Your task to perform on an android device: change notifications settings Image 0: 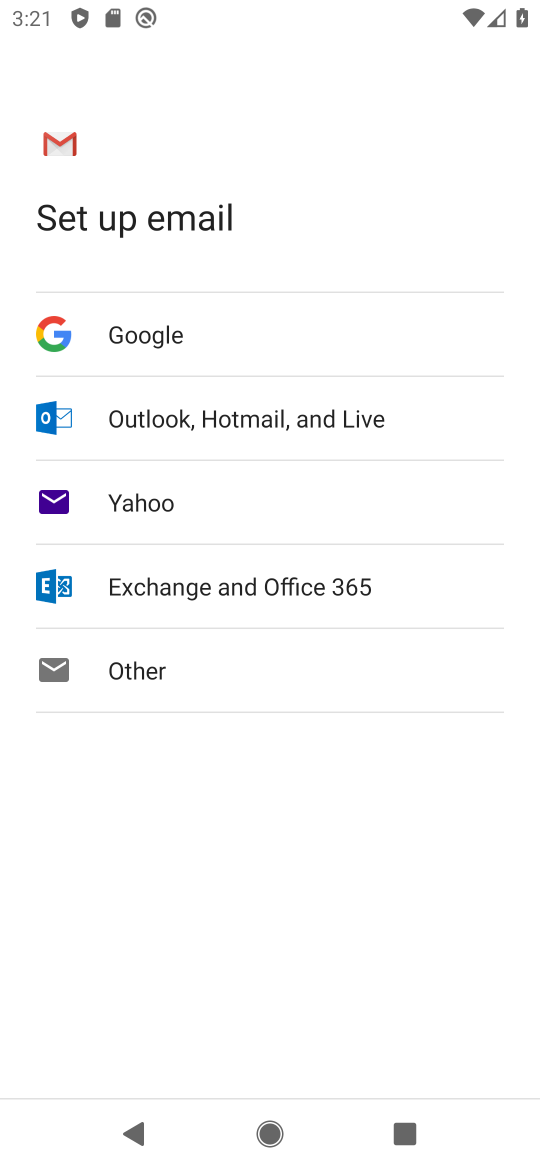
Step 0: press home button
Your task to perform on an android device: change notifications settings Image 1: 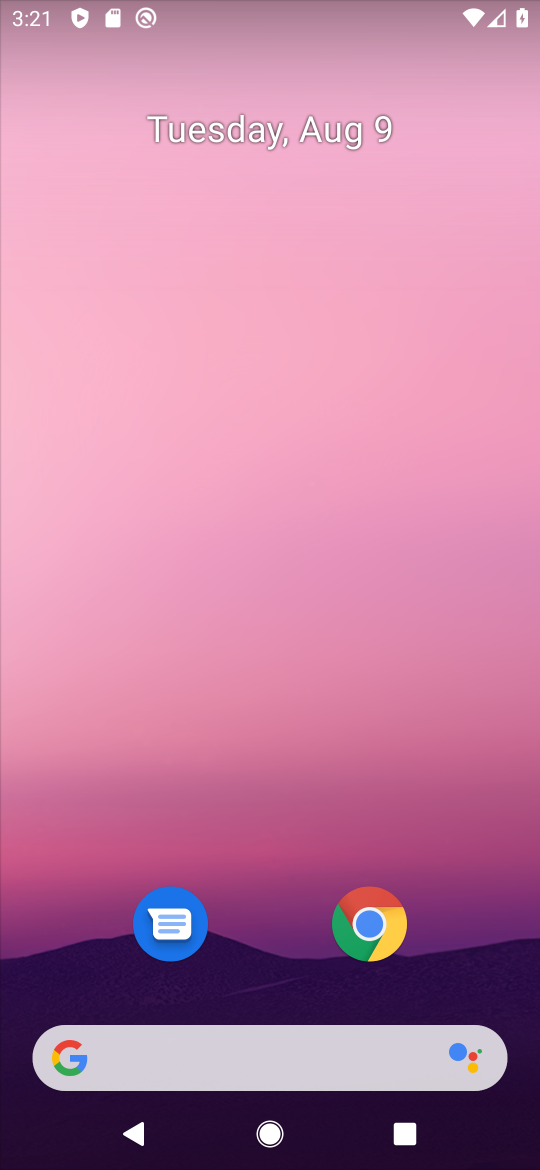
Step 1: drag from (257, 1002) to (314, 217)
Your task to perform on an android device: change notifications settings Image 2: 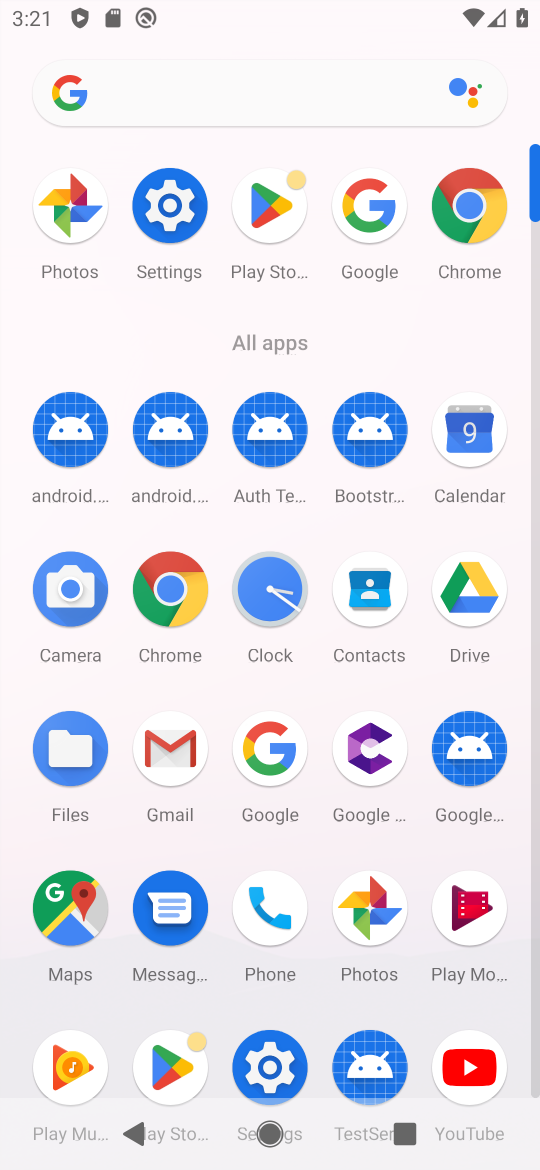
Step 2: click (171, 204)
Your task to perform on an android device: change notifications settings Image 3: 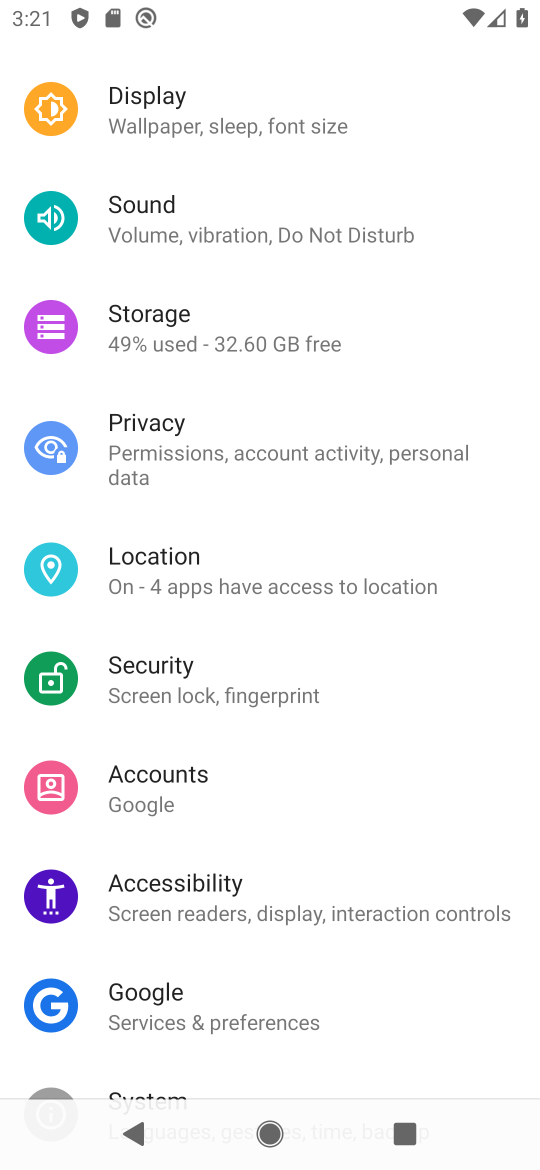
Step 3: drag from (228, 147) to (225, 700)
Your task to perform on an android device: change notifications settings Image 4: 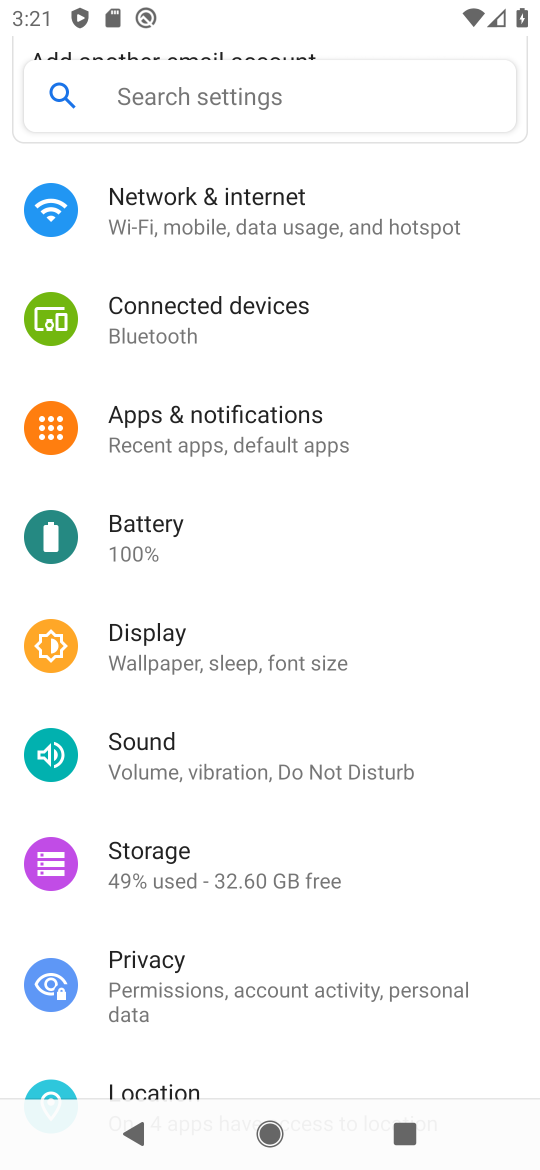
Step 4: click (243, 431)
Your task to perform on an android device: change notifications settings Image 5: 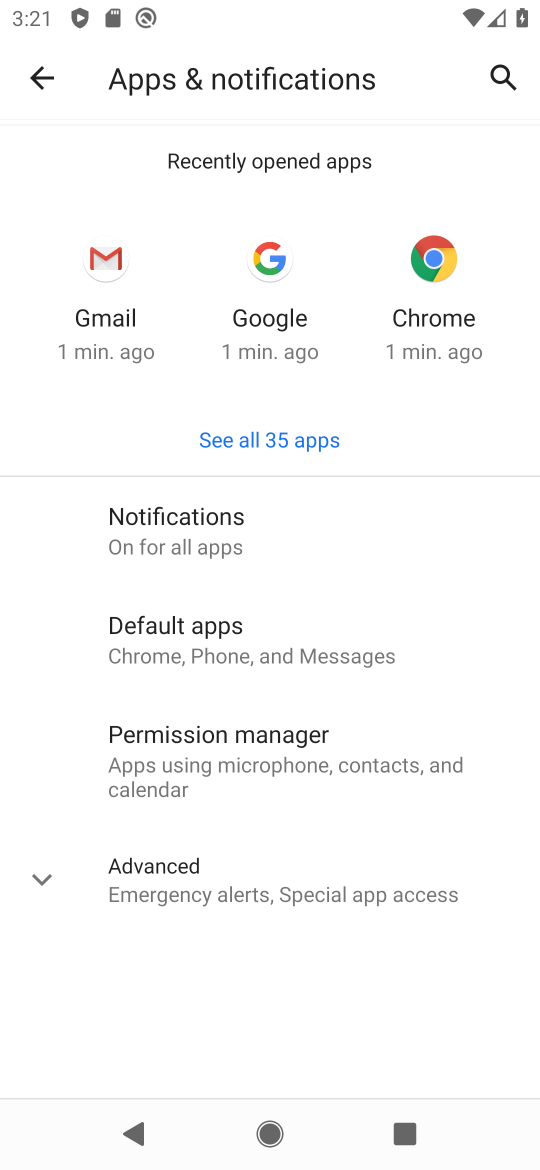
Step 5: click (220, 553)
Your task to perform on an android device: change notifications settings Image 6: 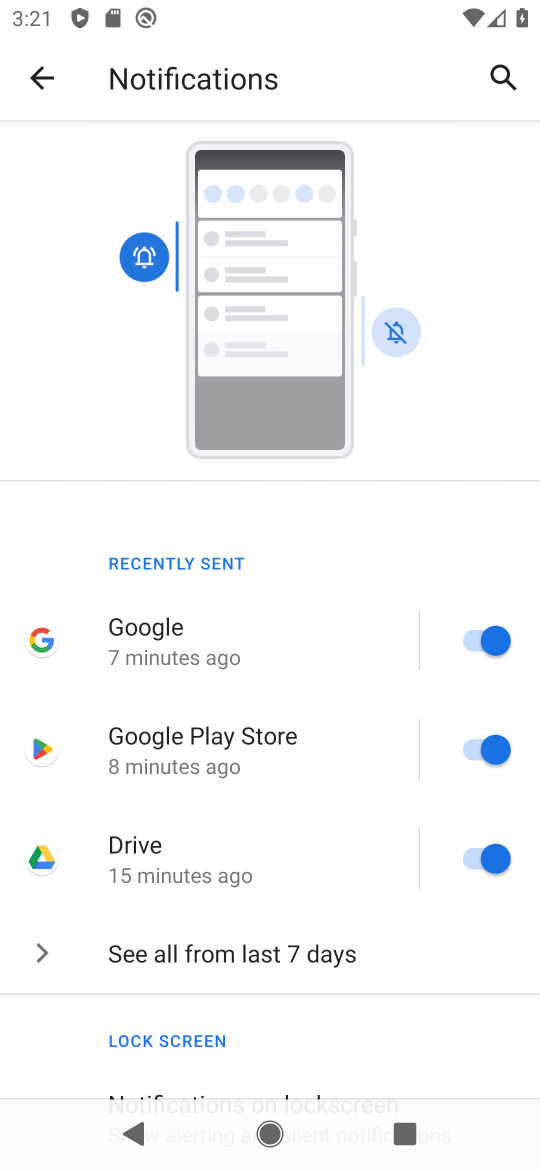
Step 6: drag from (242, 1034) to (400, 648)
Your task to perform on an android device: change notifications settings Image 7: 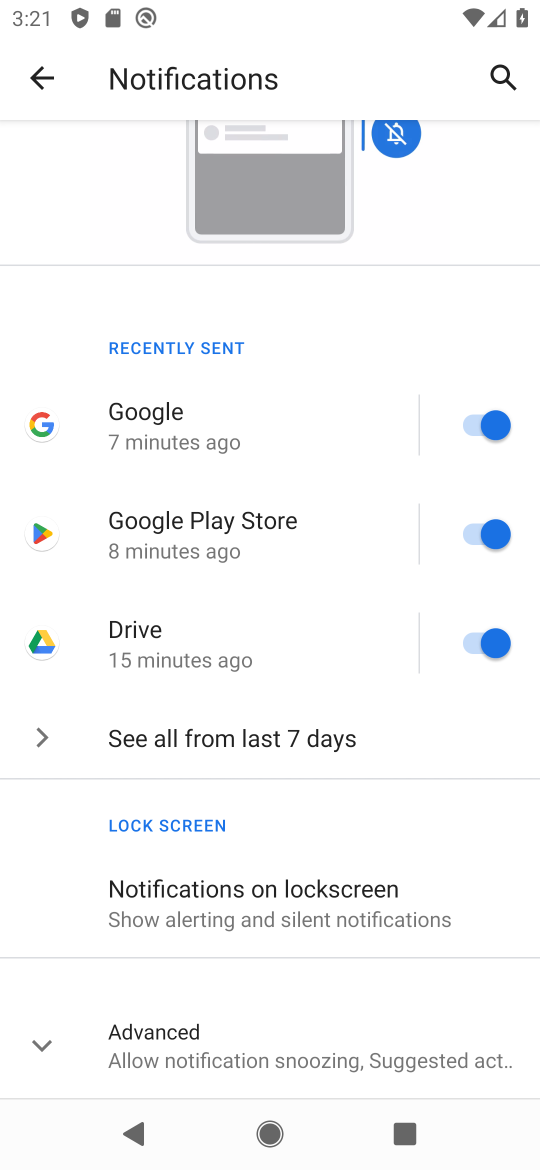
Step 7: click (327, 1044)
Your task to perform on an android device: change notifications settings Image 8: 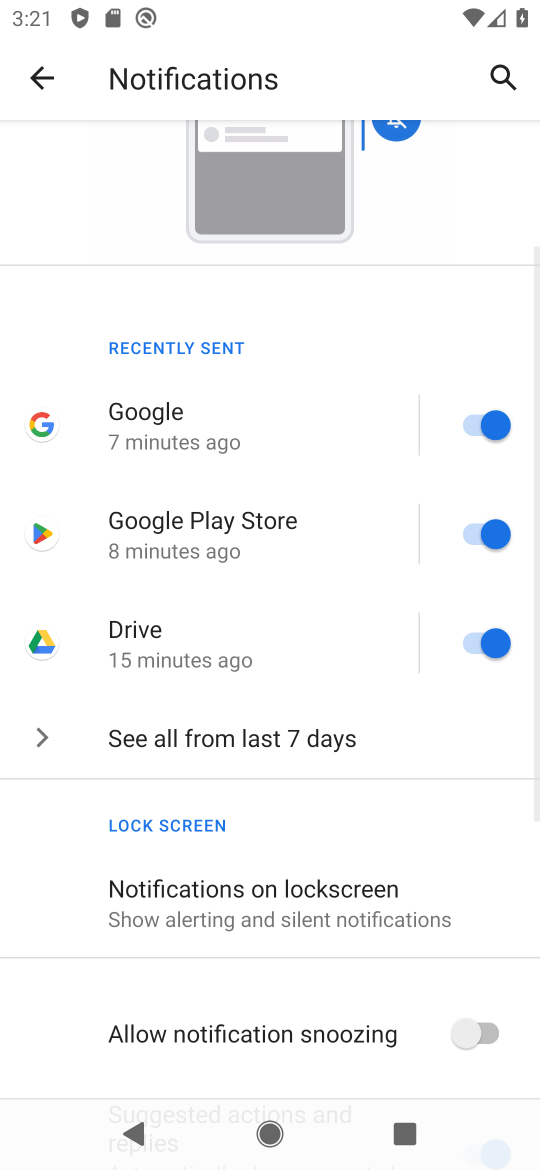
Step 8: drag from (344, 963) to (376, 643)
Your task to perform on an android device: change notifications settings Image 9: 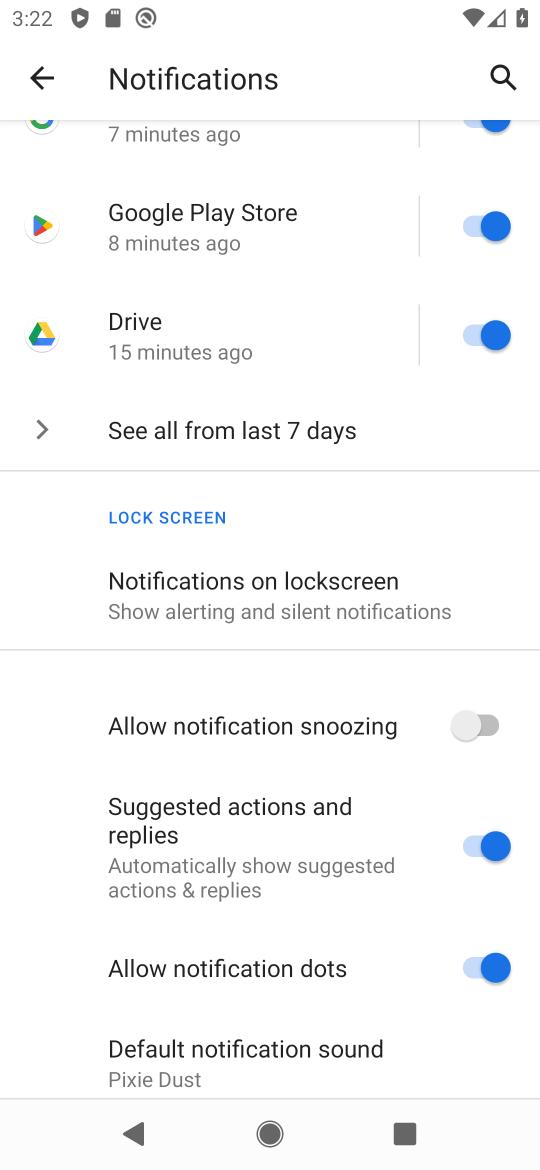
Step 9: click (468, 956)
Your task to perform on an android device: change notifications settings Image 10: 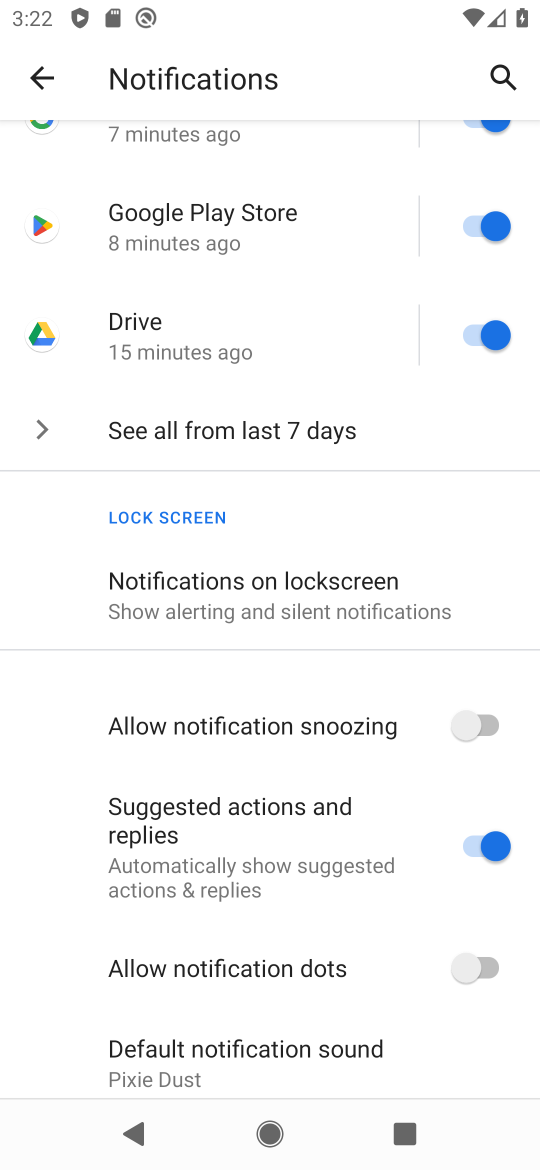
Step 10: task complete